Your task to perform on an android device: Open Android settings Image 0: 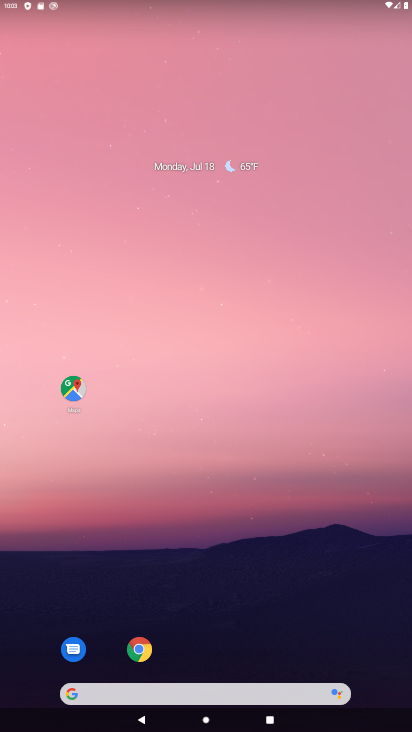
Step 0: drag from (252, 665) to (314, 171)
Your task to perform on an android device: Open Android settings Image 1: 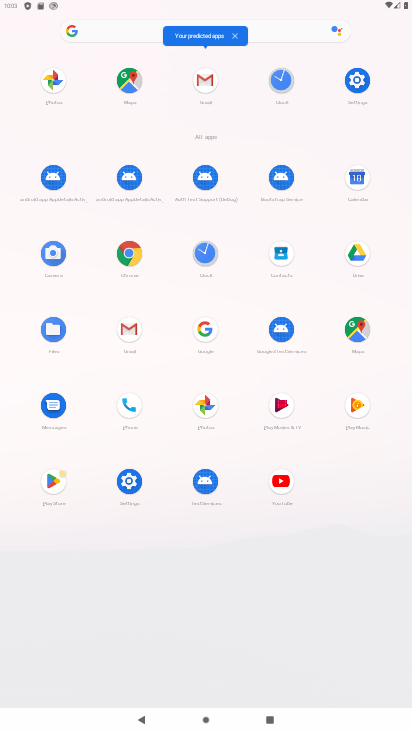
Step 1: click (140, 490)
Your task to perform on an android device: Open Android settings Image 2: 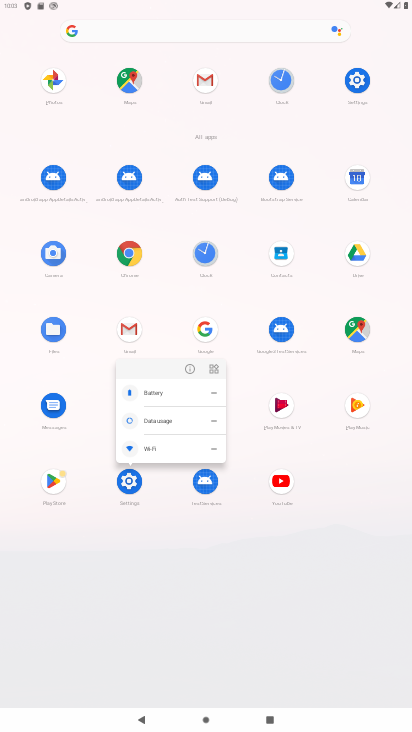
Step 2: click (140, 490)
Your task to perform on an android device: Open Android settings Image 3: 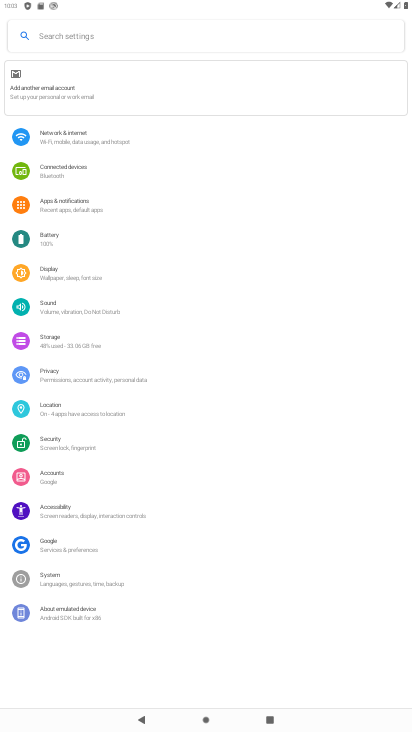
Step 3: task complete